Your task to perform on an android device: move an email to a new category in the gmail app Image 0: 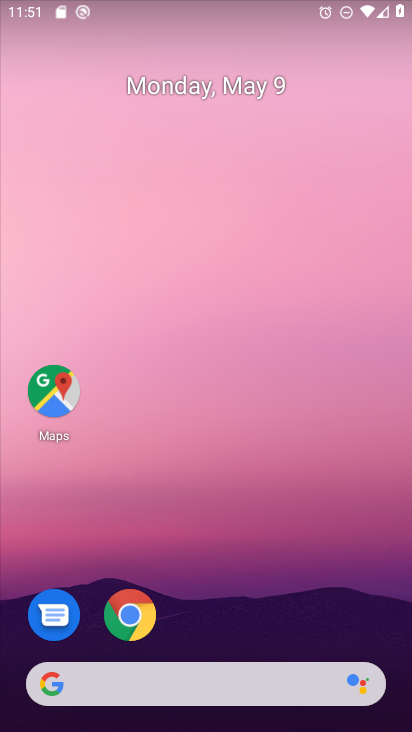
Step 0: drag from (296, 673) to (271, 214)
Your task to perform on an android device: move an email to a new category in the gmail app Image 1: 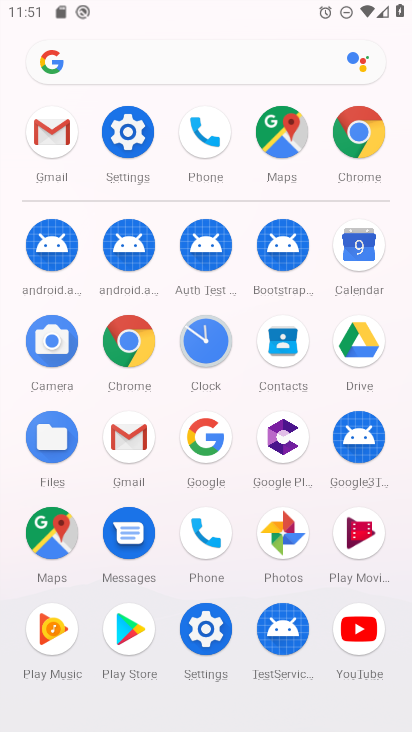
Step 1: click (48, 149)
Your task to perform on an android device: move an email to a new category in the gmail app Image 2: 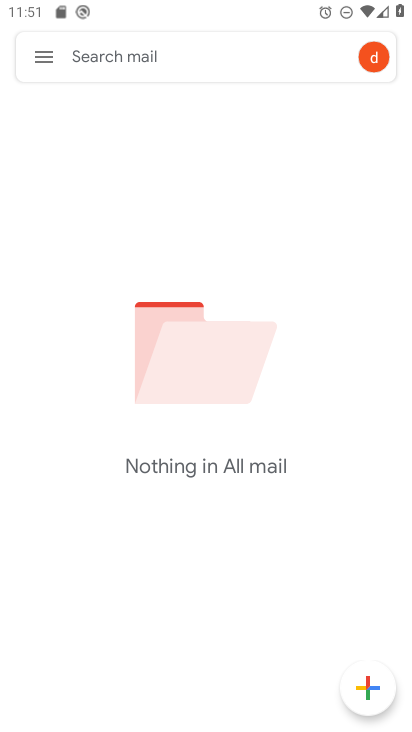
Step 2: click (52, 53)
Your task to perform on an android device: move an email to a new category in the gmail app Image 3: 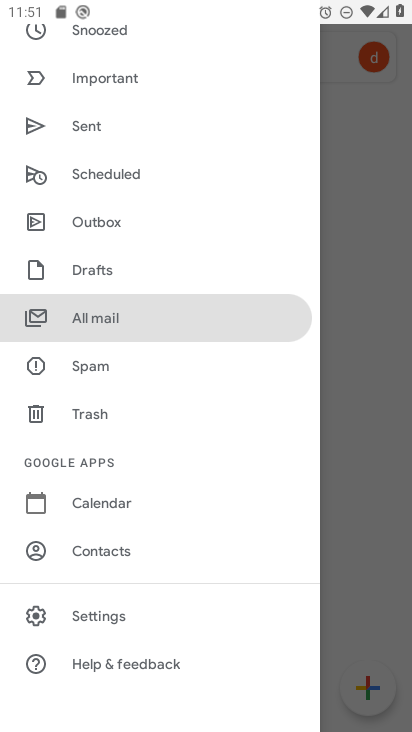
Step 3: click (108, 608)
Your task to perform on an android device: move an email to a new category in the gmail app Image 4: 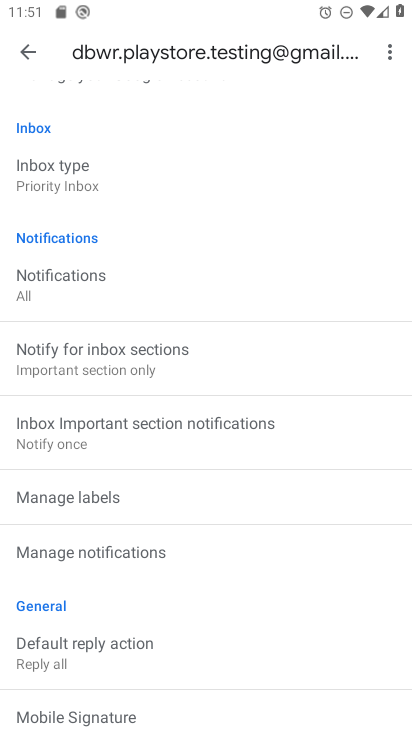
Step 4: click (109, 191)
Your task to perform on an android device: move an email to a new category in the gmail app Image 5: 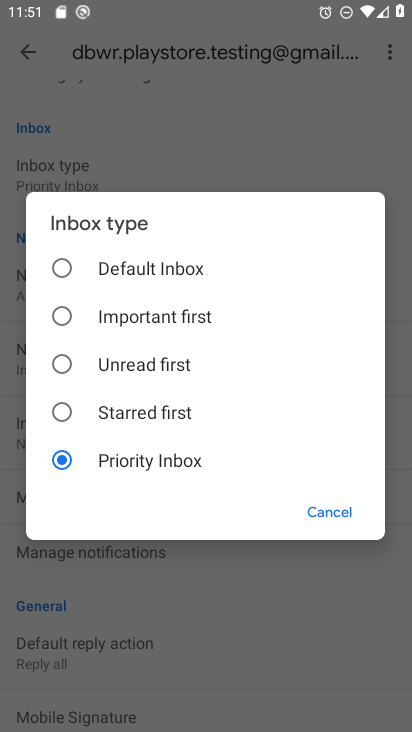
Step 5: click (166, 269)
Your task to perform on an android device: move an email to a new category in the gmail app Image 6: 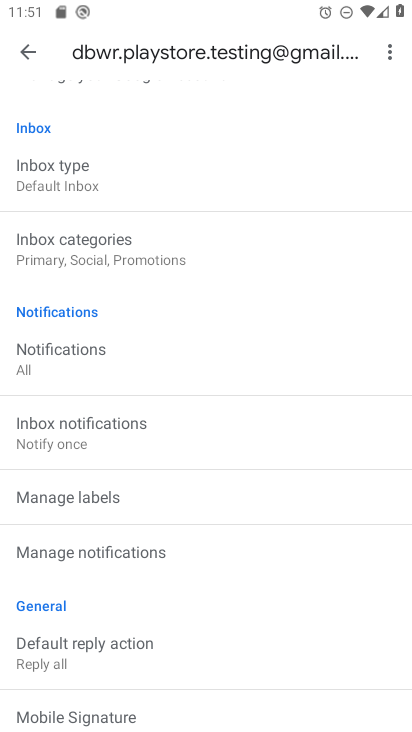
Step 6: click (137, 264)
Your task to perform on an android device: move an email to a new category in the gmail app Image 7: 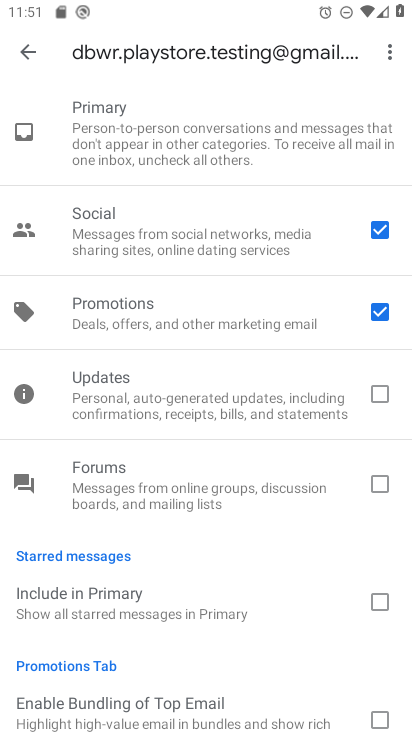
Step 7: click (377, 294)
Your task to perform on an android device: move an email to a new category in the gmail app Image 8: 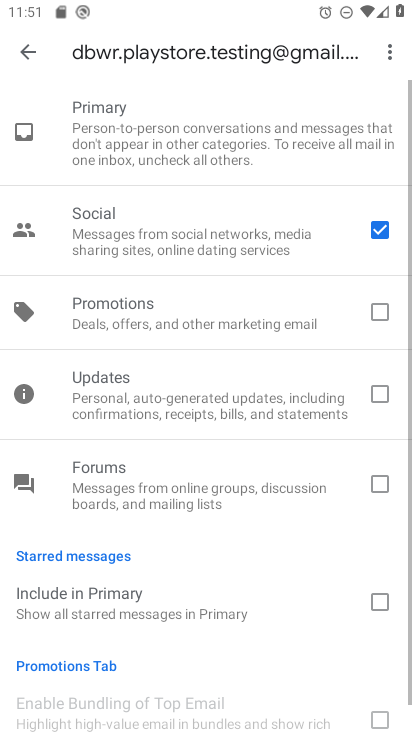
Step 8: click (393, 225)
Your task to perform on an android device: move an email to a new category in the gmail app Image 9: 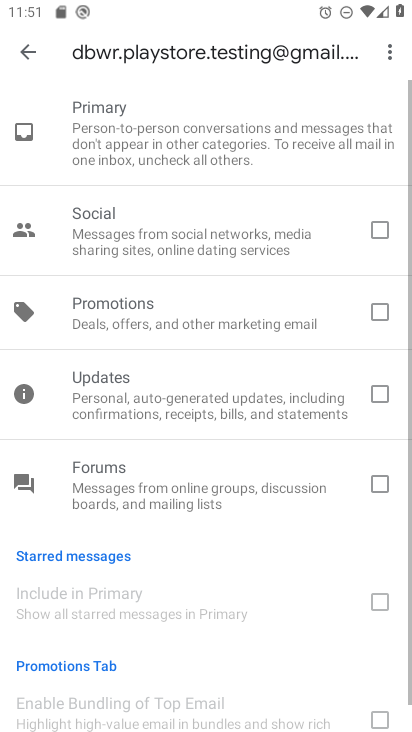
Step 9: task complete